Your task to perform on an android device: move an email to a new category in the gmail app Image 0: 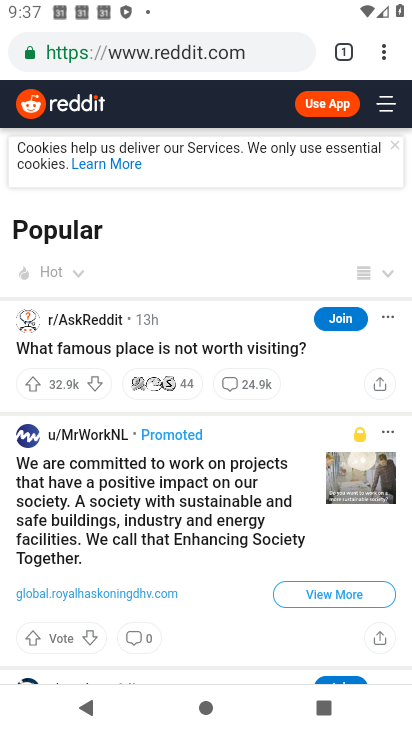
Step 0: press home button
Your task to perform on an android device: move an email to a new category in the gmail app Image 1: 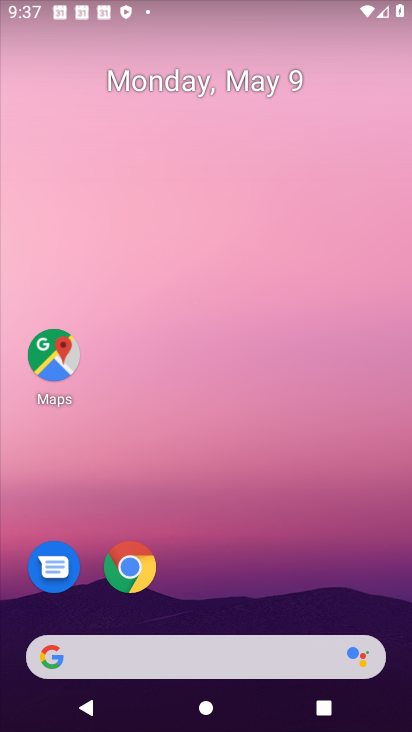
Step 1: drag from (198, 656) to (88, 140)
Your task to perform on an android device: move an email to a new category in the gmail app Image 2: 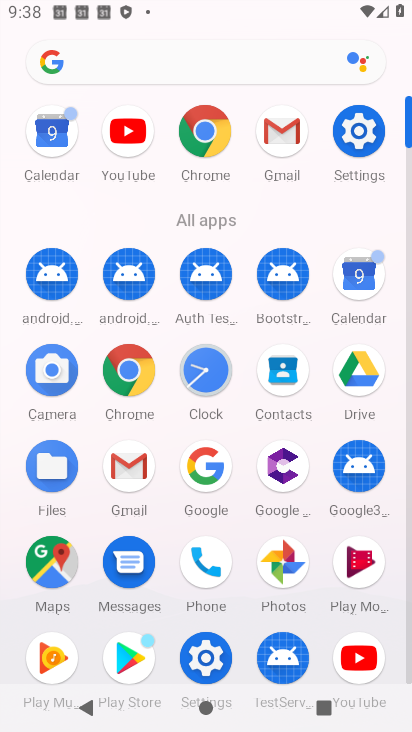
Step 2: click (124, 465)
Your task to perform on an android device: move an email to a new category in the gmail app Image 3: 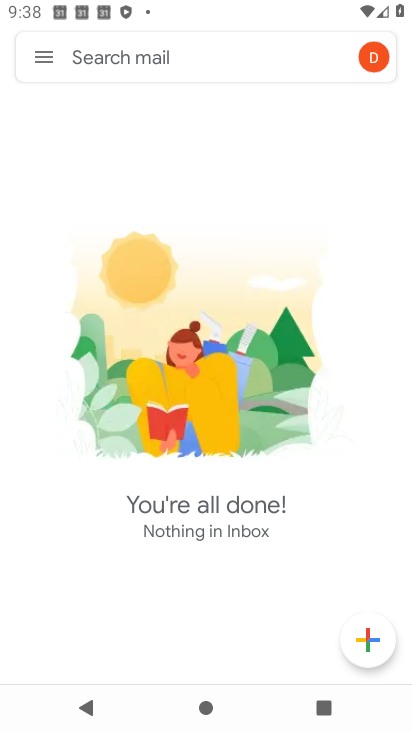
Step 3: click (41, 56)
Your task to perform on an android device: move an email to a new category in the gmail app Image 4: 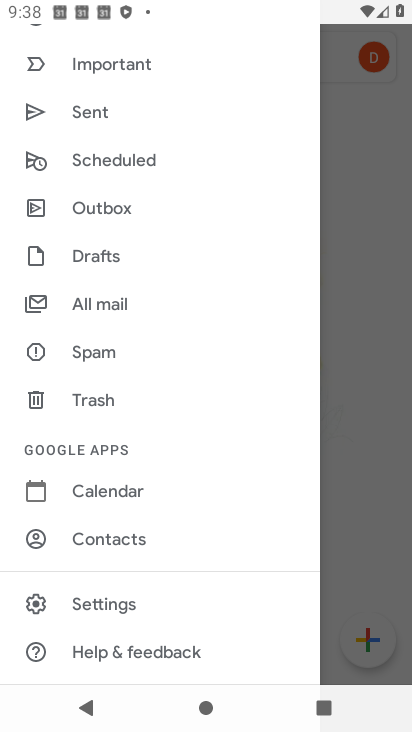
Step 4: click (86, 304)
Your task to perform on an android device: move an email to a new category in the gmail app Image 5: 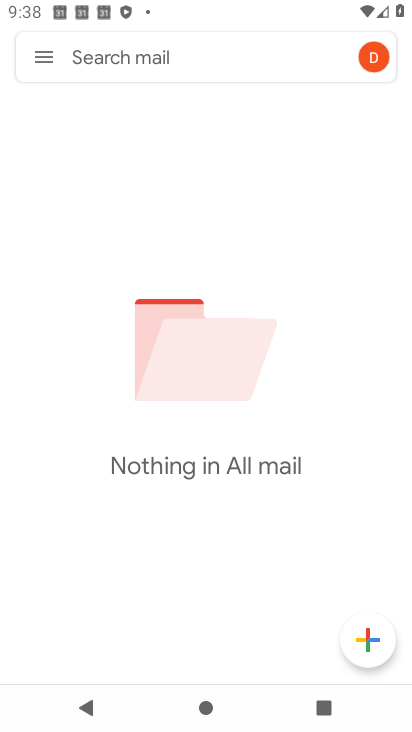
Step 5: task complete